Your task to perform on an android device: When is my next appointment? Image 0: 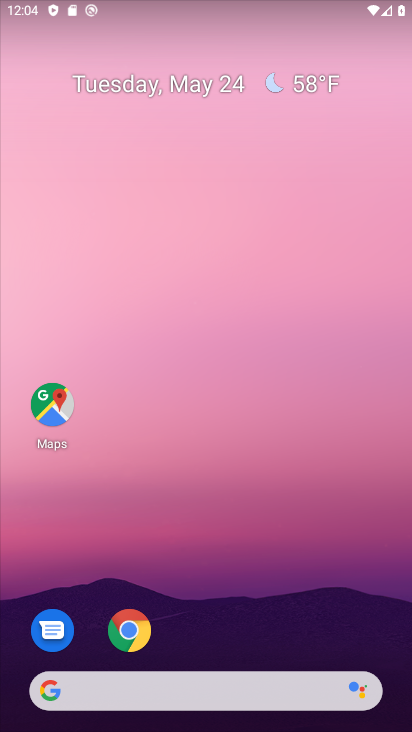
Step 0: drag from (225, 600) to (212, 168)
Your task to perform on an android device: When is my next appointment? Image 1: 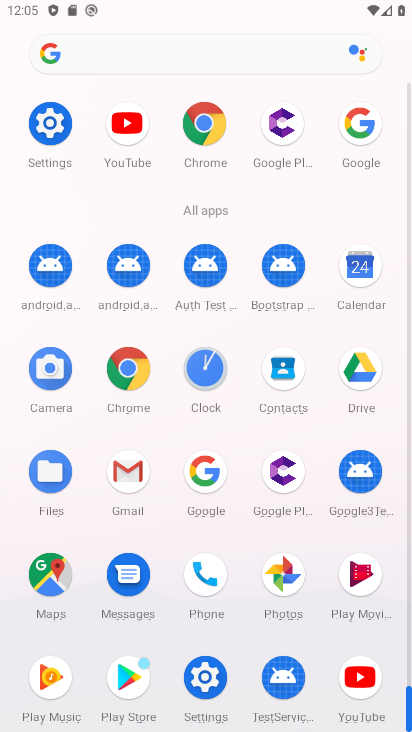
Step 1: click (361, 268)
Your task to perform on an android device: When is my next appointment? Image 2: 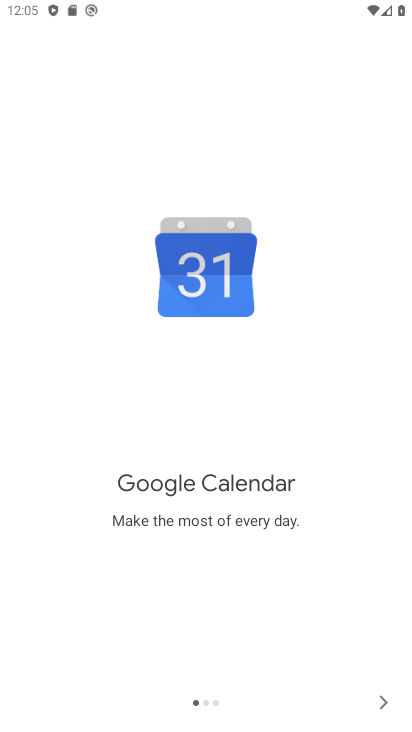
Step 2: click (385, 701)
Your task to perform on an android device: When is my next appointment? Image 3: 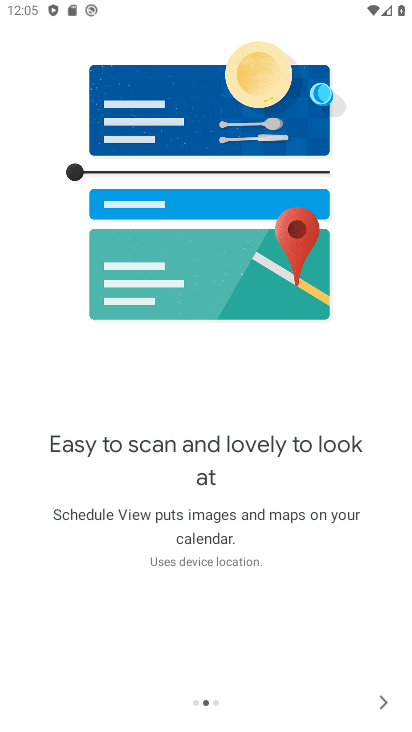
Step 3: click (385, 701)
Your task to perform on an android device: When is my next appointment? Image 4: 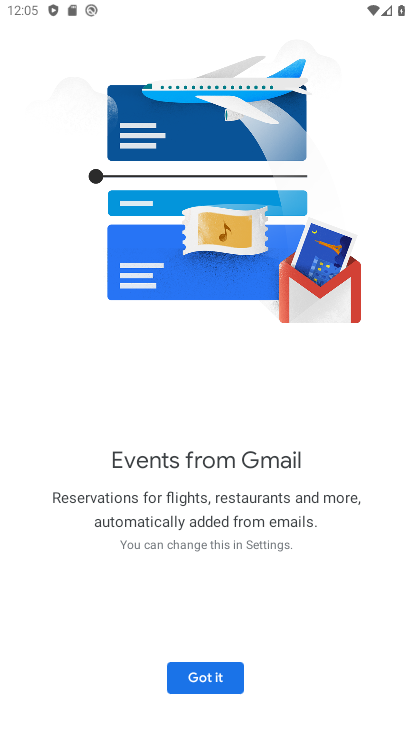
Step 4: click (207, 679)
Your task to perform on an android device: When is my next appointment? Image 5: 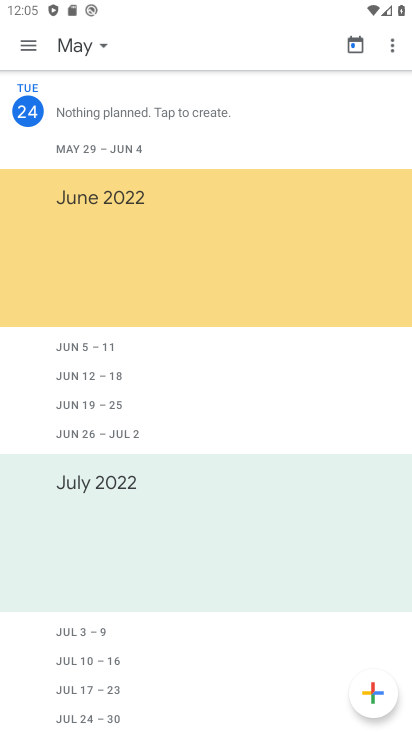
Step 5: click (102, 43)
Your task to perform on an android device: When is my next appointment? Image 6: 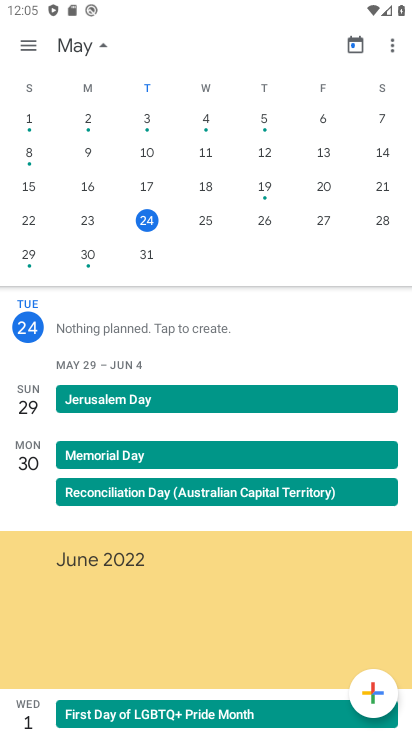
Step 6: click (91, 248)
Your task to perform on an android device: When is my next appointment? Image 7: 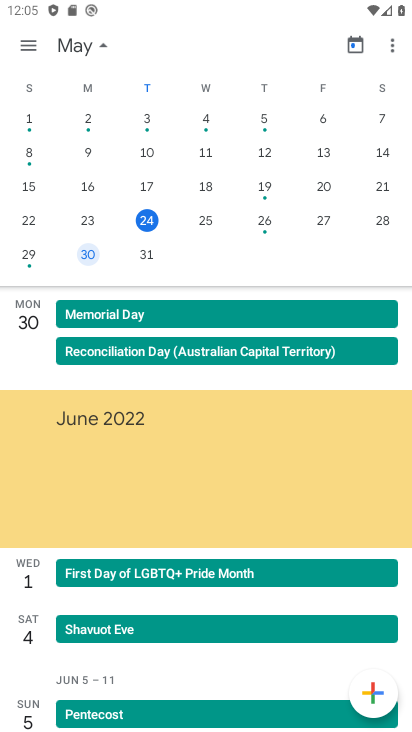
Step 7: click (258, 224)
Your task to perform on an android device: When is my next appointment? Image 8: 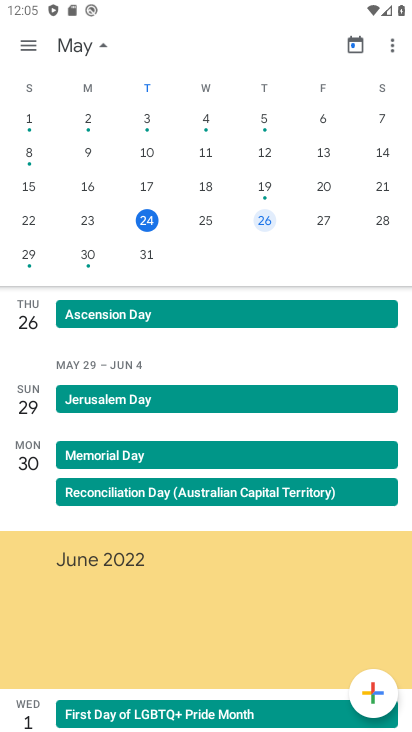
Step 8: click (187, 304)
Your task to perform on an android device: When is my next appointment? Image 9: 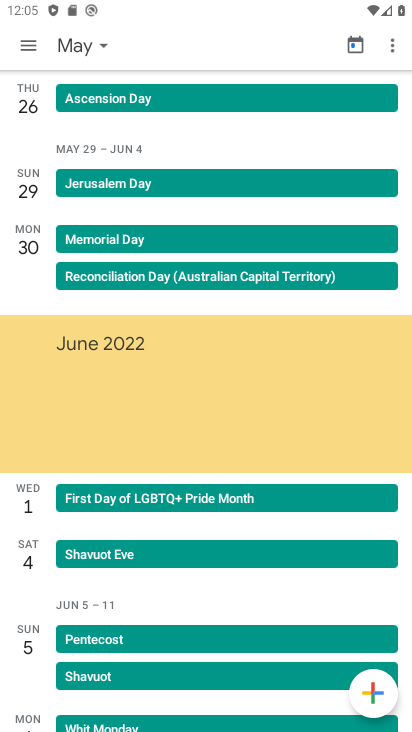
Step 9: click (215, 83)
Your task to perform on an android device: When is my next appointment? Image 10: 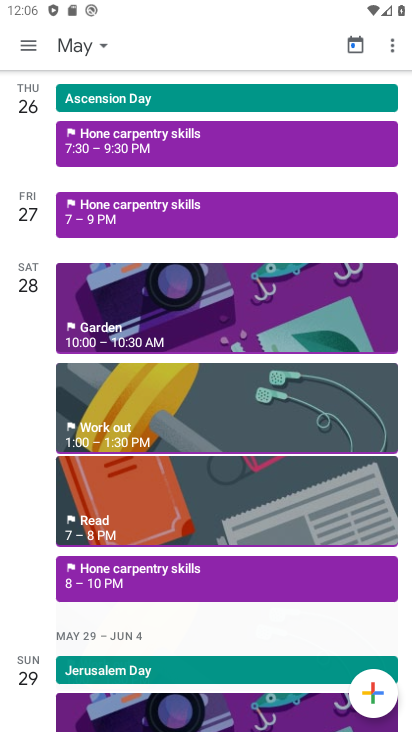
Step 10: click (275, 137)
Your task to perform on an android device: When is my next appointment? Image 11: 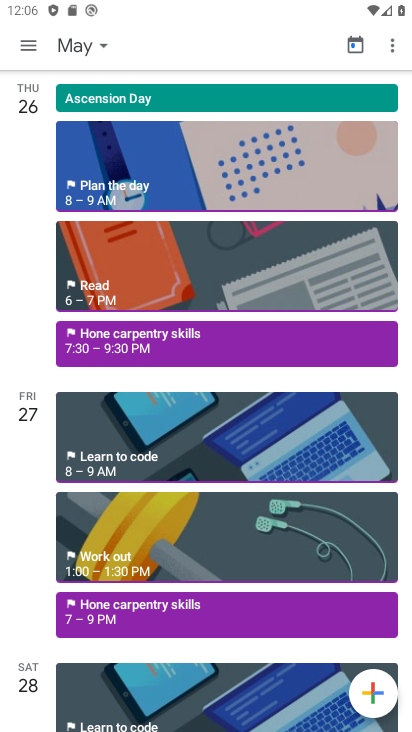
Step 11: task complete